Your task to perform on an android device: toggle javascript in the chrome app Image 0: 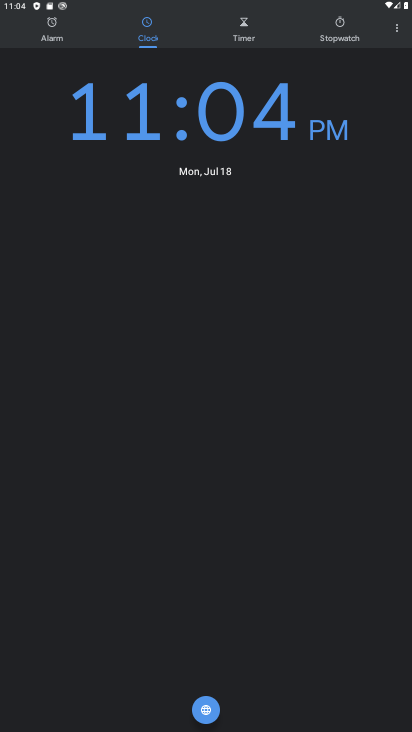
Step 0: press home button
Your task to perform on an android device: toggle javascript in the chrome app Image 1: 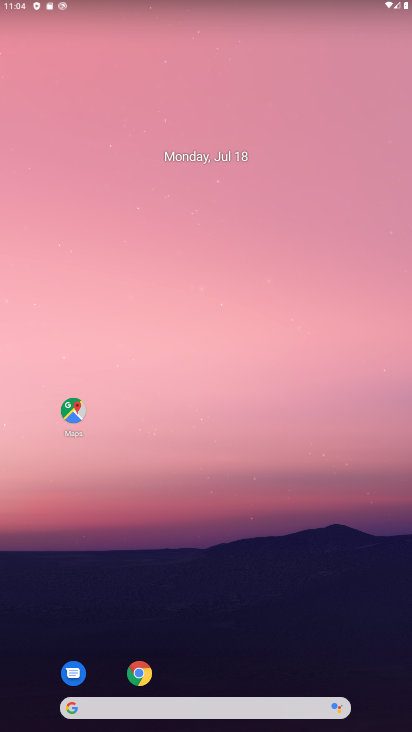
Step 1: drag from (221, 651) to (316, 43)
Your task to perform on an android device: toggle javascript in the chrome app Image 2: 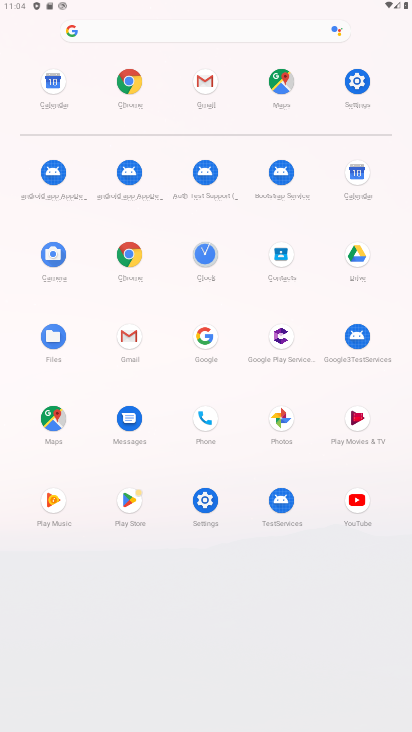
Step 2: click (120, 250)
Your task to perform on an android device: toggle javascript in the chrome app Image 3: 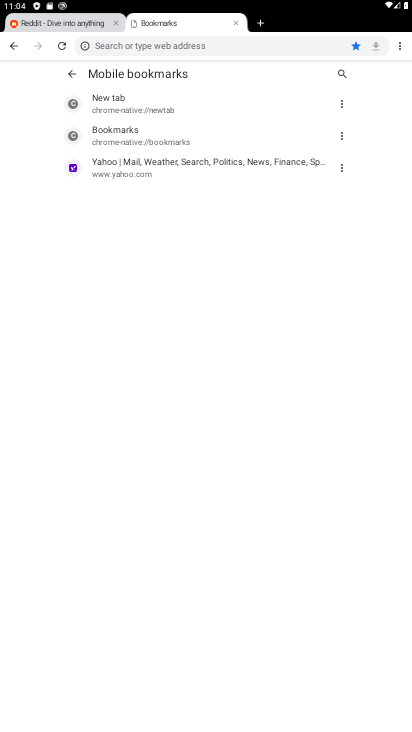
Step 3: drag from (224, 638) to (340, 173)
Your task to perform on an android device: toggle javascript in the chrome app Image 4: 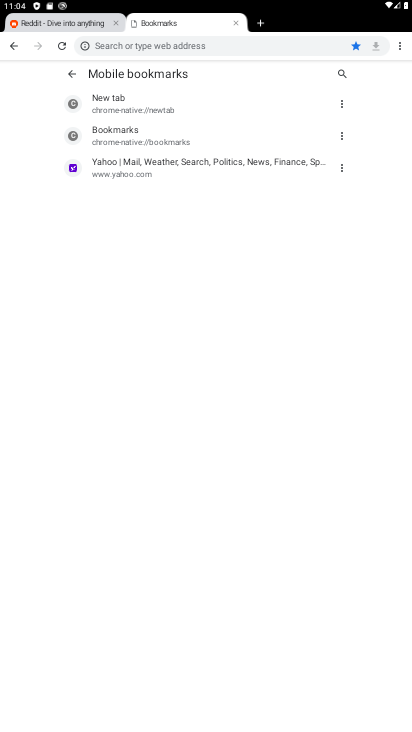
Step 4: click (235, 384)
Your task to perform on an android device: toggle javascript in the chrome app Image 5: 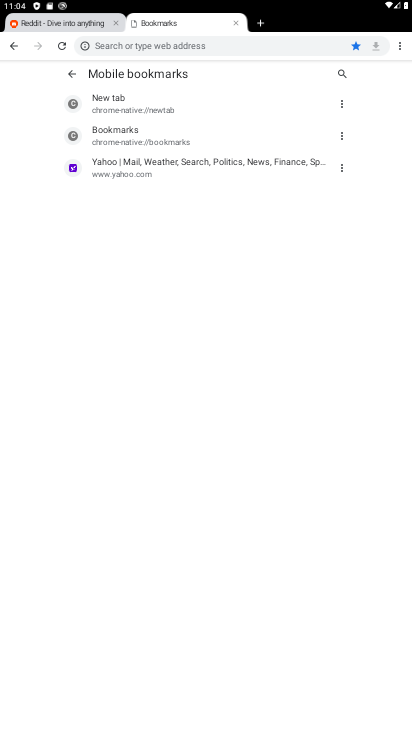
Step 5: click (402, 44)
Your task to perform on an android device: toggle javascript in the chrome app Image 6: 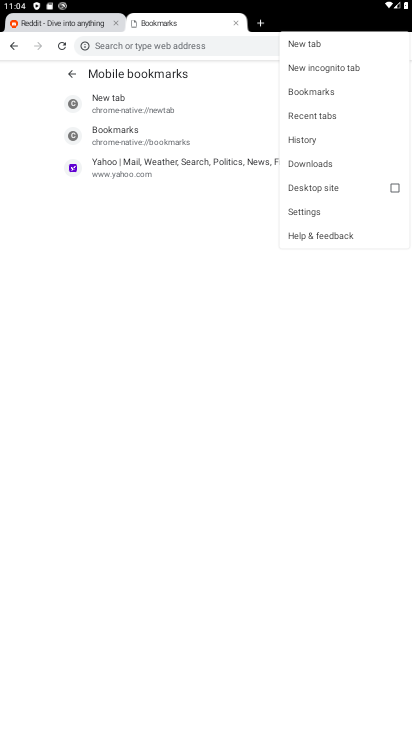
Step 6: click (330, 214)
Your task to perform on an android device: toggle javascript in the chrome app Image 7: 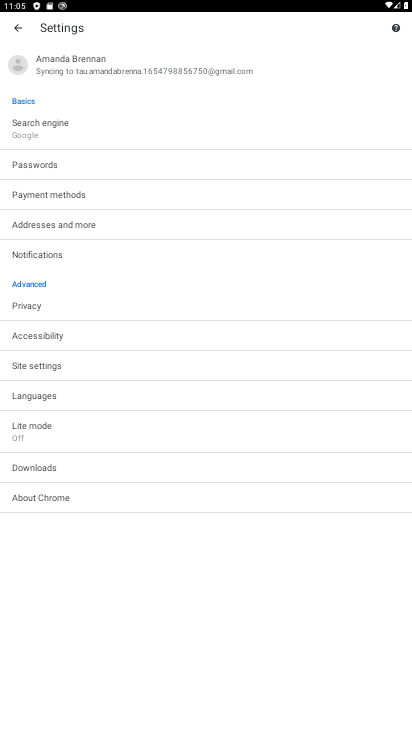
Step 7: click (70, 362)
Your task to perform on an android device: toggle javascript in the chrome app Image 8: 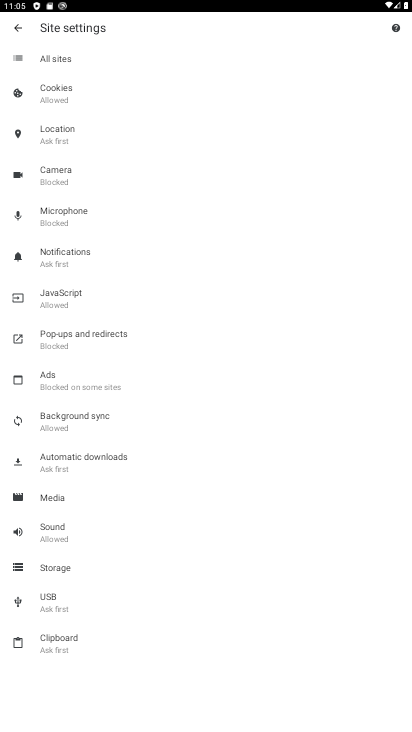
Step 8: click (85, 293)
Your task to perform on an android device: toggle javascript in the chrome app Image 9: 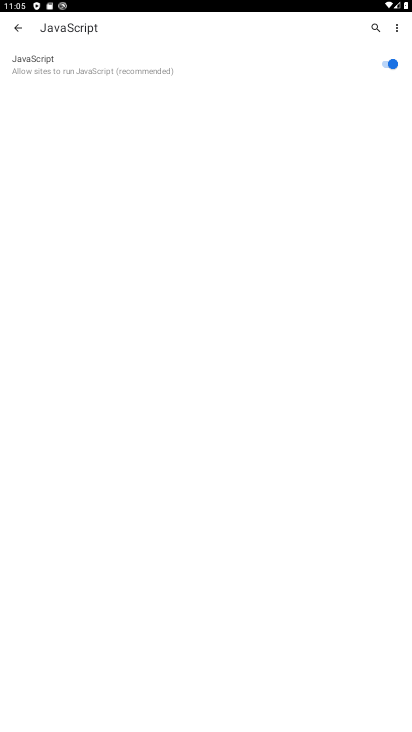
Step 9: click (382, 60)
Your task to perform on an android device: toggle javascript in the chrome app Image 10: 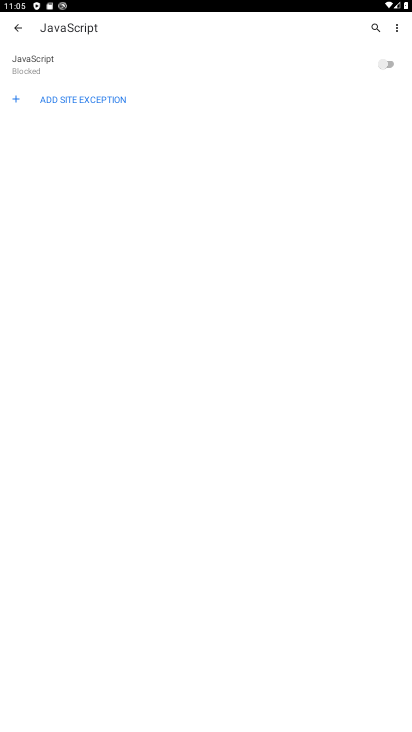
Step 10: task complete